Your task to perform on an android device: Search for sushi restaurants on Maps Image 0: 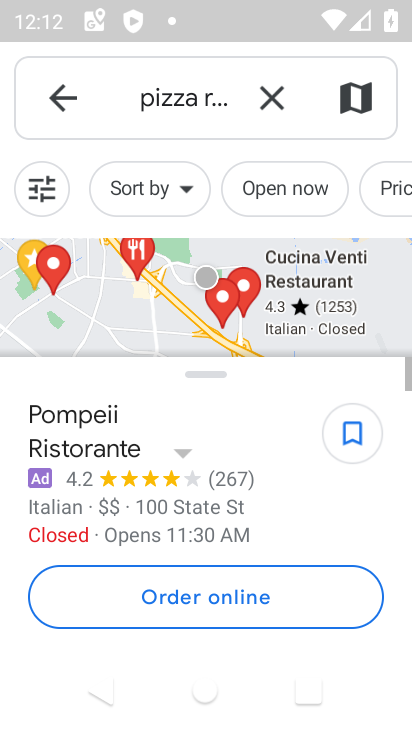
Step 0: press home button
Your task to perform on an android device: Search for sushi restaurants on Maps Image 1: 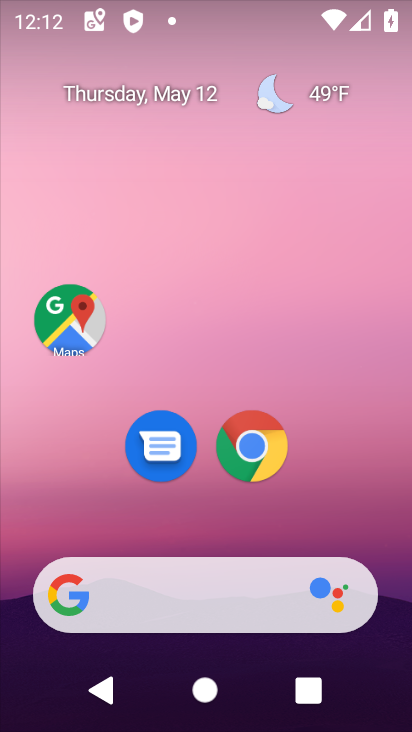
Step 1: click (56, 330)
Your task to perform on an android device: Search for sushi restaurants on Maps Image 2: 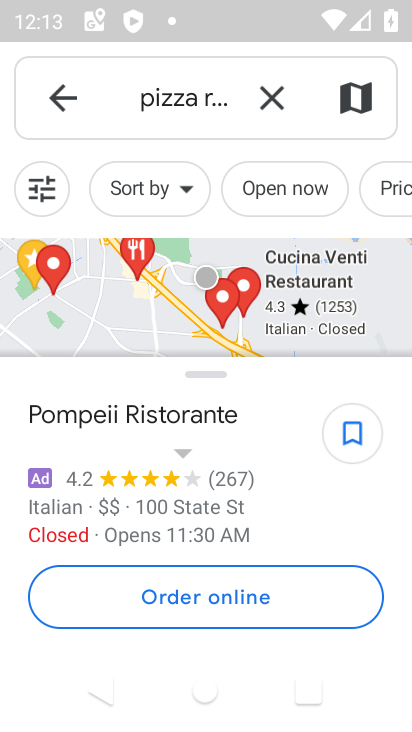
Step 2: click (278, 94)
Your task to perform on an android device: Search for sushi restaurants on Maps Image 3: 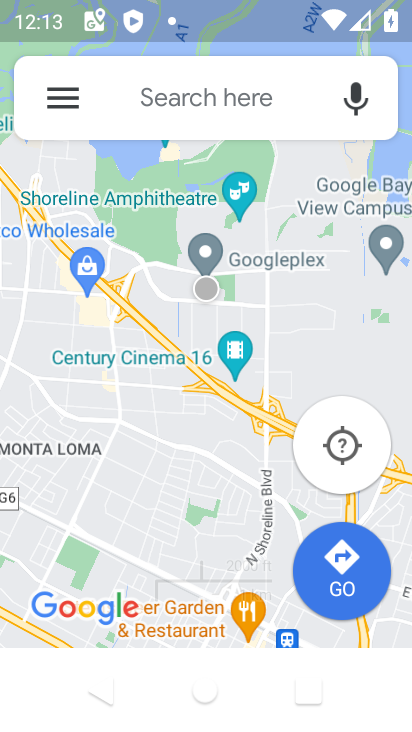
Step 3: click (218, 116)
Your task to perform on an android device: Search for sushi restaurants on Maps Image 4: 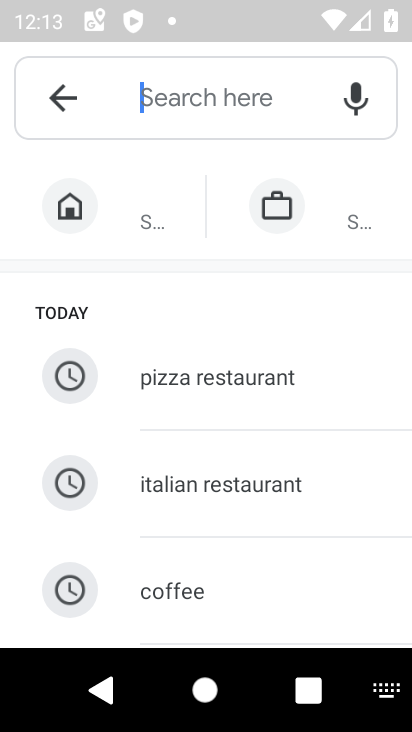
Step 4: type " sushi restaurants"
Your task to perform on an android device: Search for sushi restaurants on Maps Image 5: 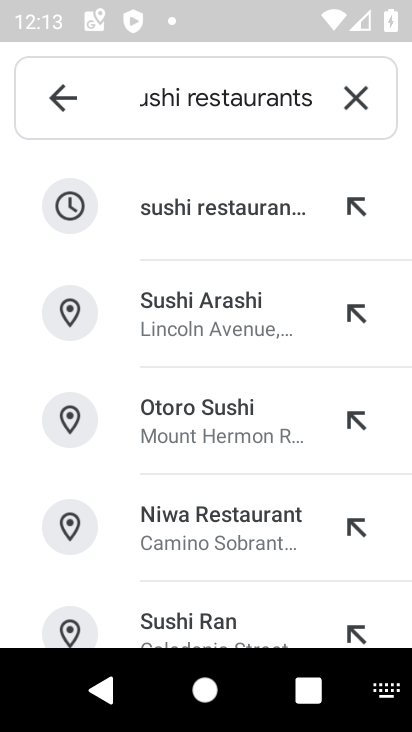
Step 5: click (190, 197)
Your task to perform on an android device: Search for sushi restaurants on Maps Image 6: 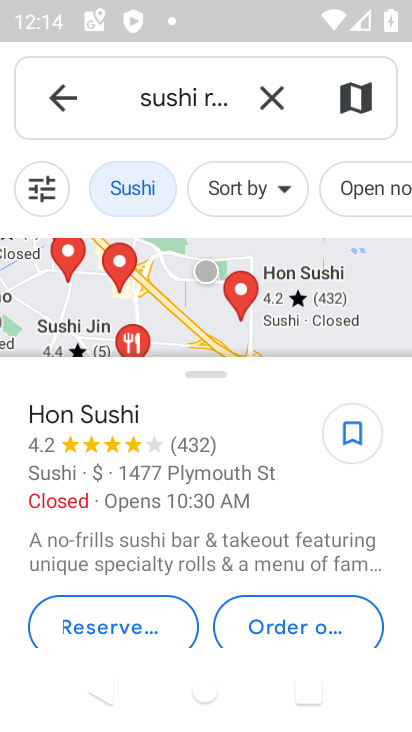
Step 6: task complete